Your task to perform on an android device: toggle improve location accuracy Image 0: 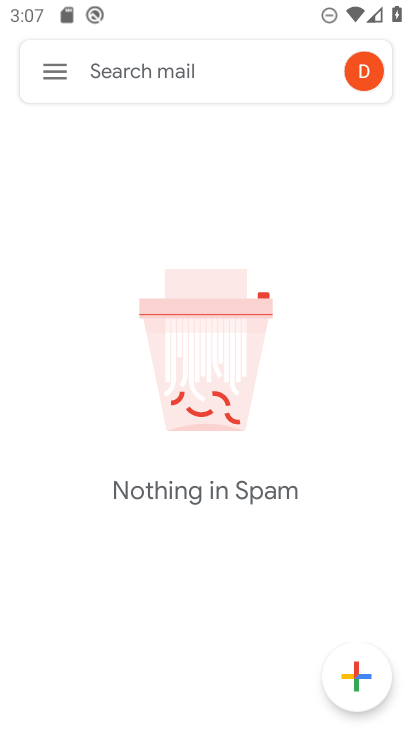
Step 0: press back button
Your task to perform on an android device: toggle improve location accuracy Image 1: 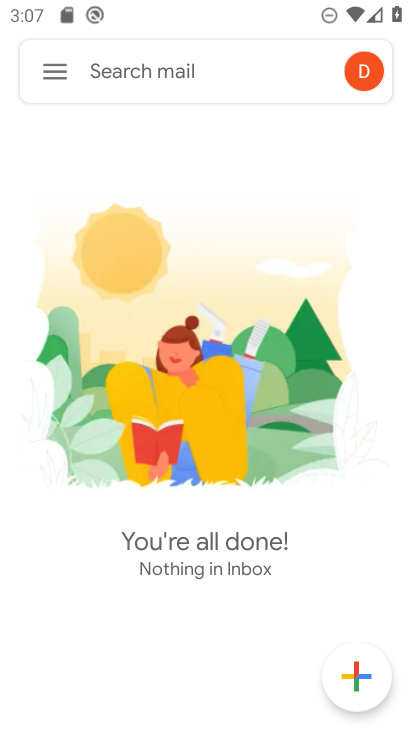
Step 1: press home button
Your task to perform on an android device: toggle improve location accuracy Image 2: 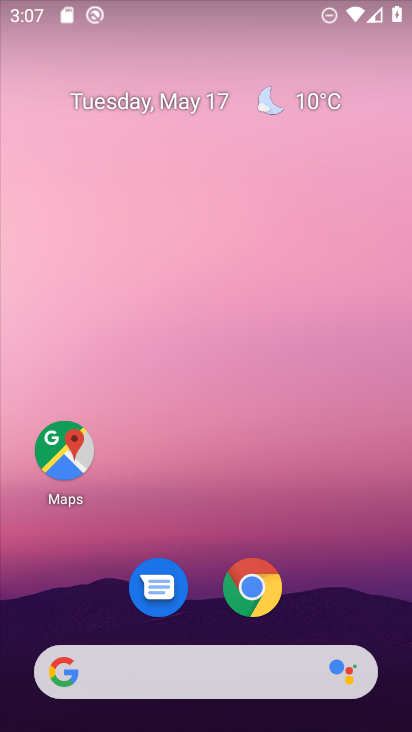
Step 2: drag from (318, 564) to (250, 60)
Your task to perform on an android device: toggle improve location accuracy Image 3: 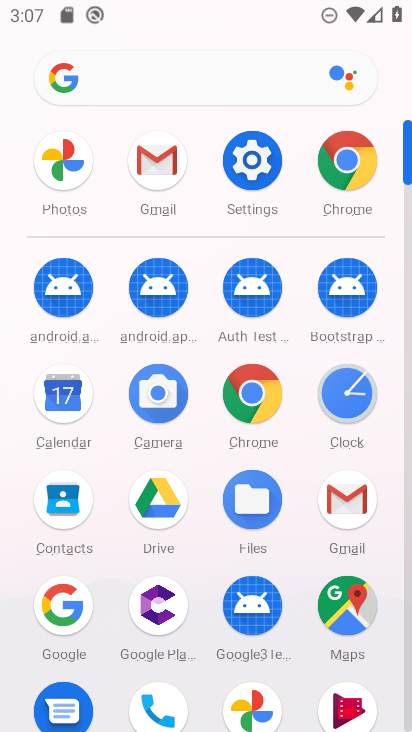
Step 3: drag from (2, 541) to (3, 83)
Your task to perform on an android device: toggle improve location accuracy Image 4: 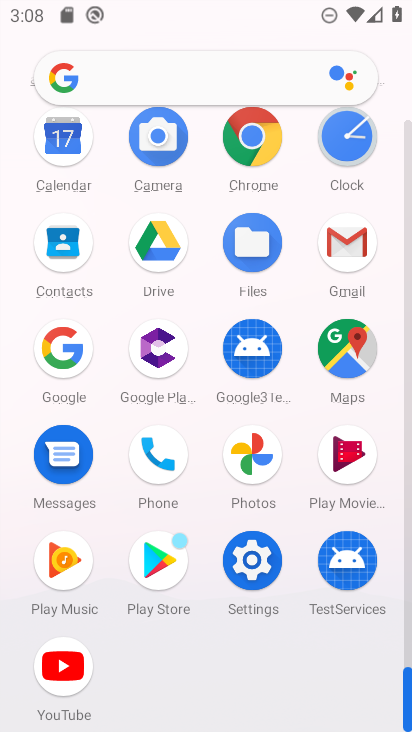
Step 4: click (254, 556)
Your task to perform on an android device: toggle improve location accuracy Image 5: 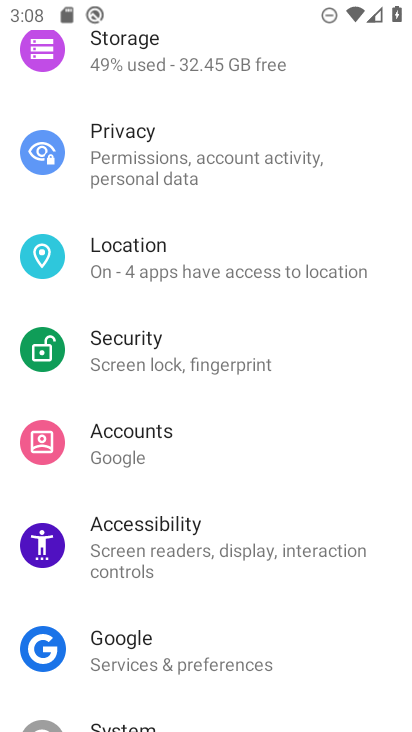
Step 5: click (196, 260)
Your task to perform on an android device: toggle improve location accuracy Image 6: 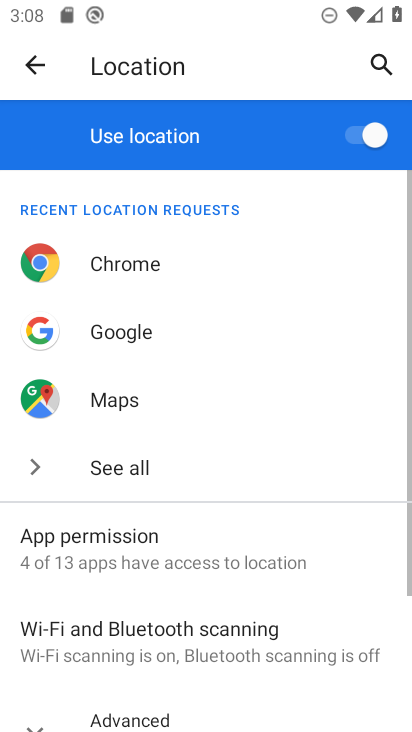
Step 6: drag from (251, 622) to (259, 198)
Your task to perform on an android device: toggle improve location accuracy Image 7: 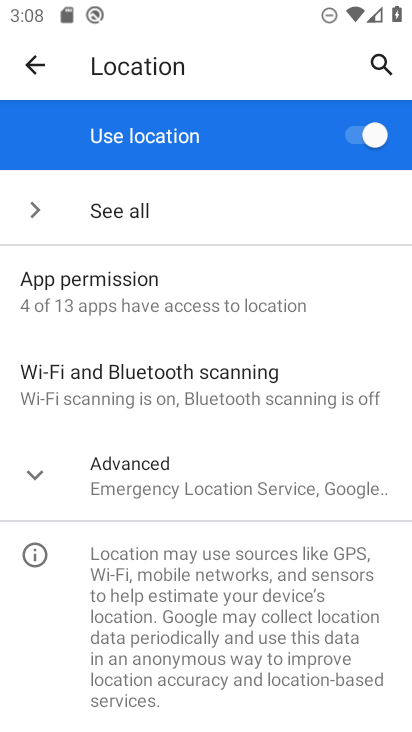
Step 7: click (134, 489)
Your task to perform on an android device: toggle improve location accuracy Image 8: 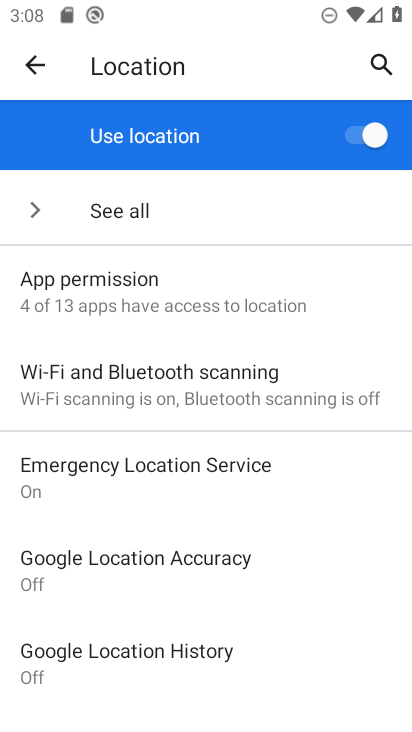
Step 8: click (185, 564)
Your task to perform on an android device: toggle improve location accuracy Image 9: 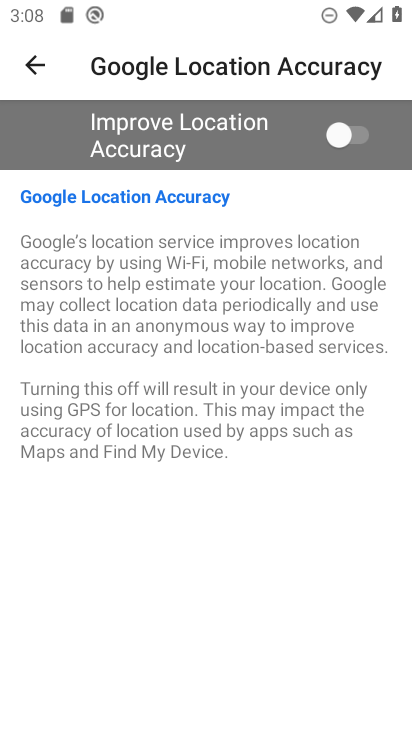
Step 9: click (350, 130)
Your task to perform on an android device: toggle improve location accuracy Image 10: 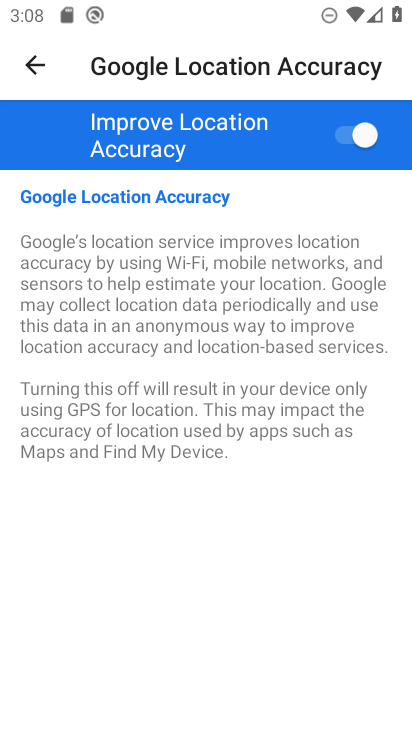
Step 10: task complete